Your task to perform on an android device: Turn off the flashlight Image 0: 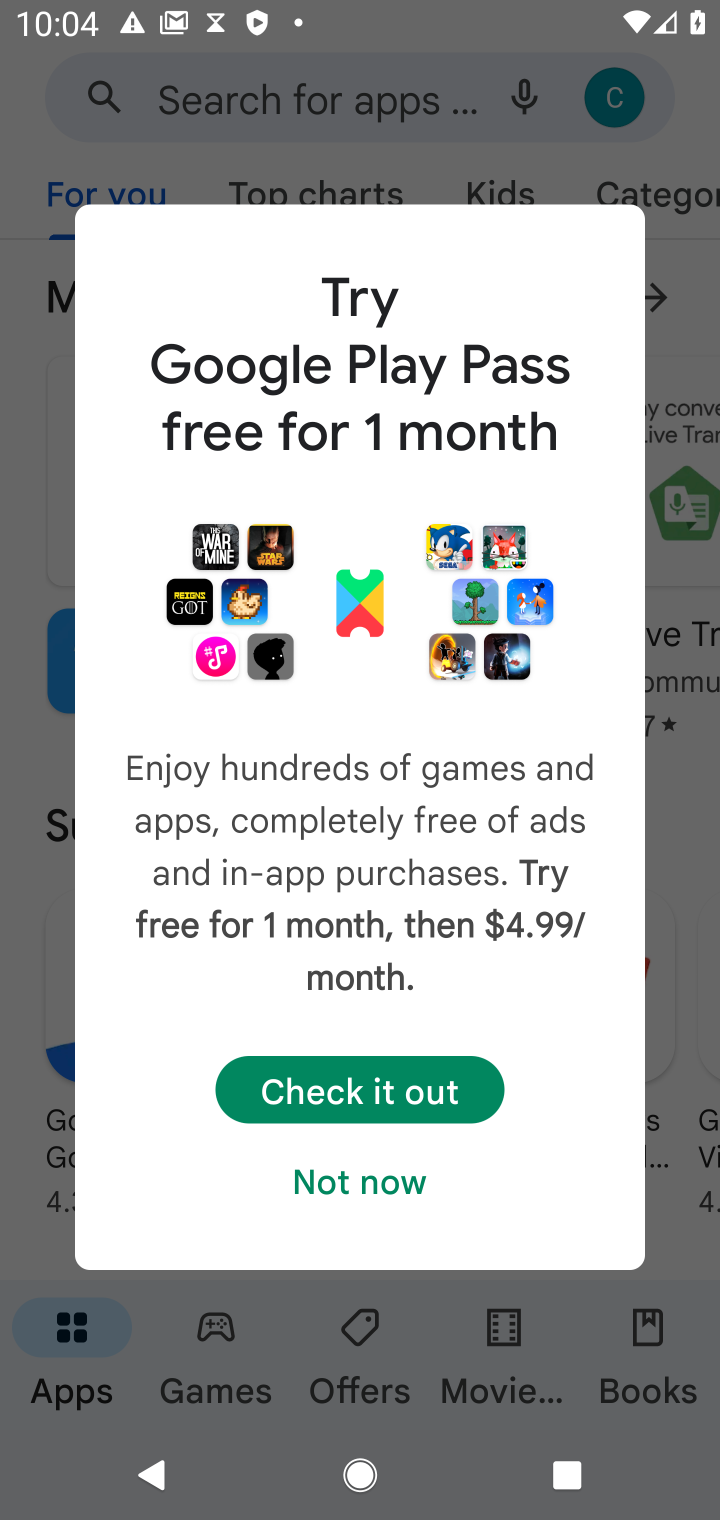
Step 0: press home button
Your task to perform on an android device: Turn off the flashlight Image 1: 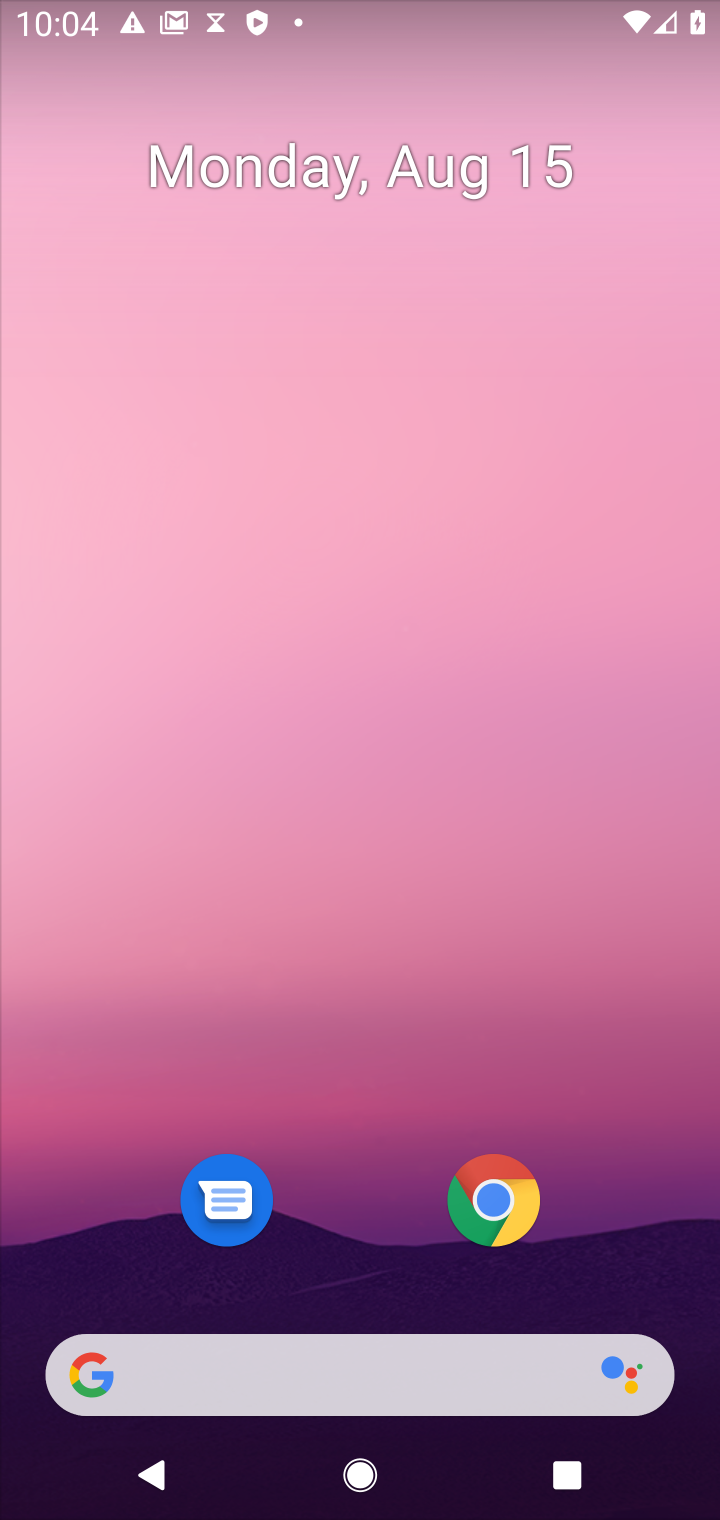
Step 1: drag from (297, 1144) to (285, 266)
Your task to perform on an android device: Turn off the flashlight Image 2: 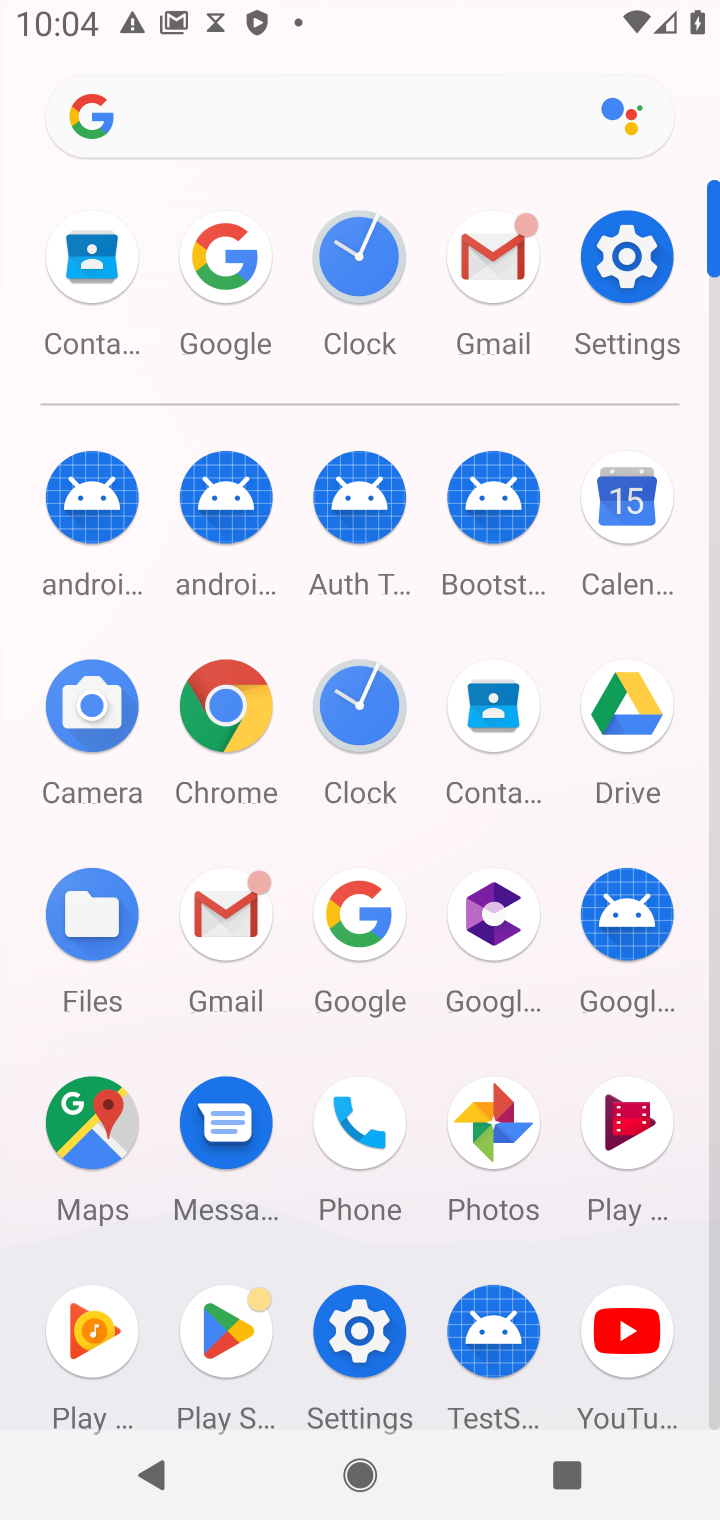
Step 2: click (646, 249)
Your task to perform on an android device: Turn off the flashlight Image 3: 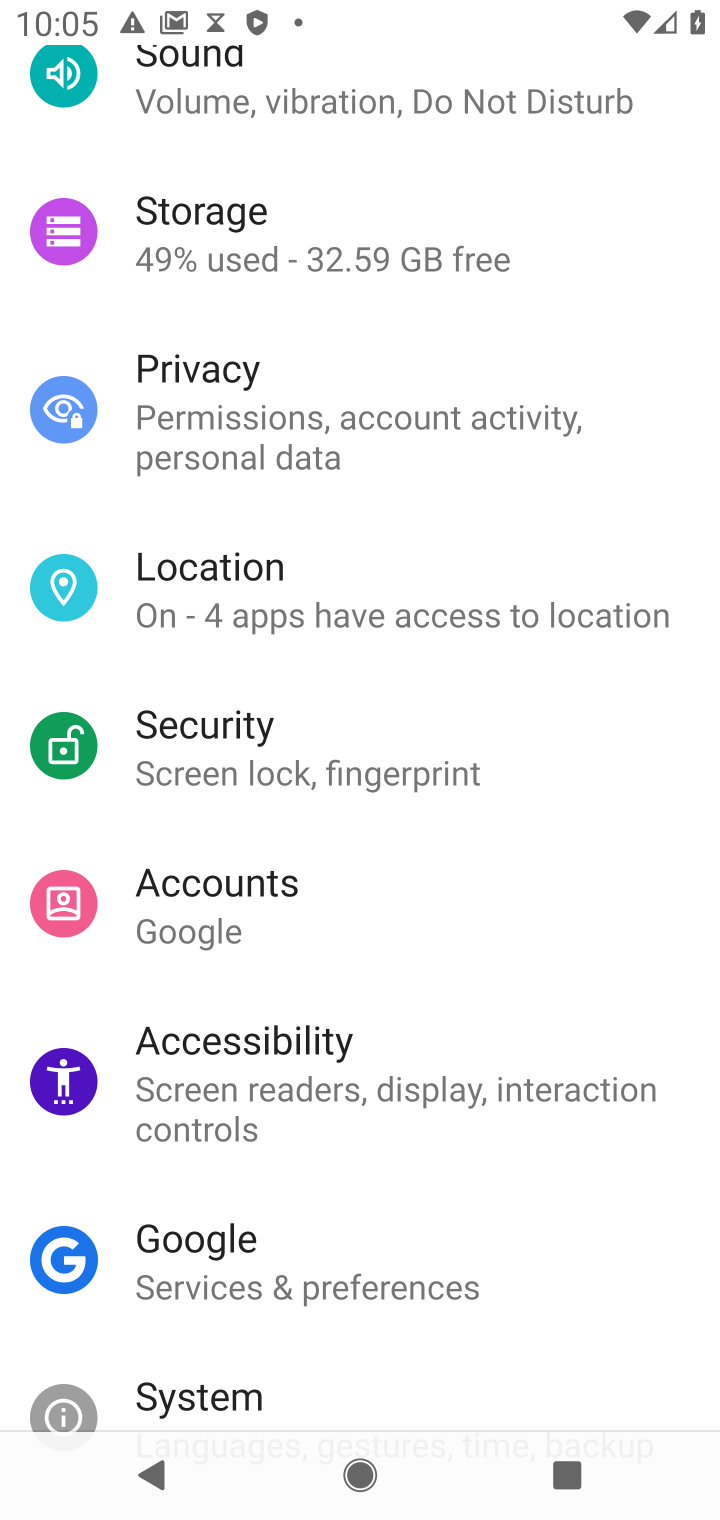
Step 3: task complete